Your task to perform on an android device: What's the price of the Sony TV? Image 0: 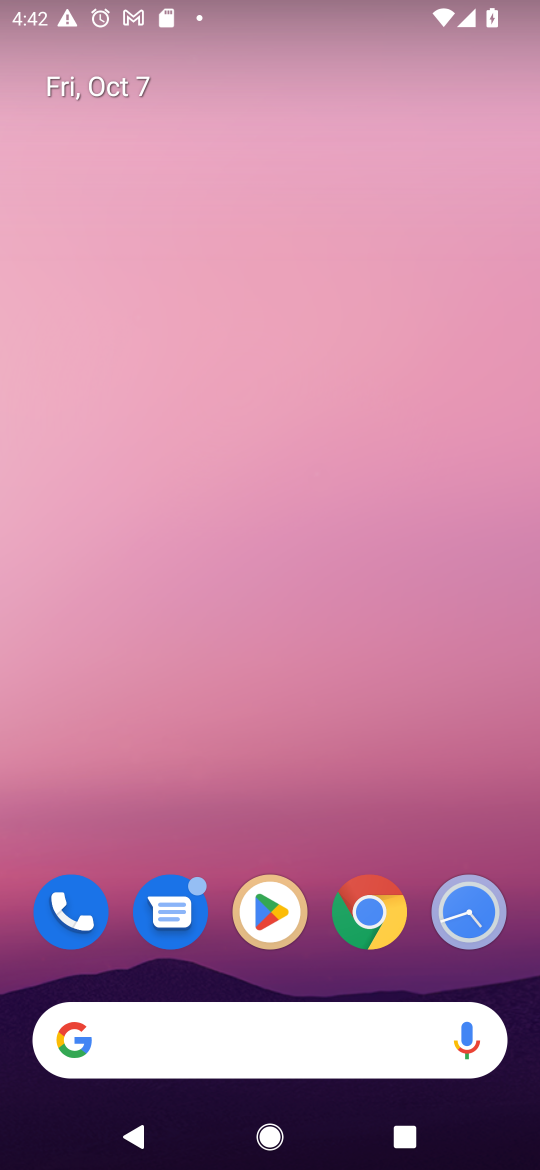
Step 0: drag from (124, 907) to (186, 672)
Your task to perform on an android device: What's the price of the Sony TV? Image 1: 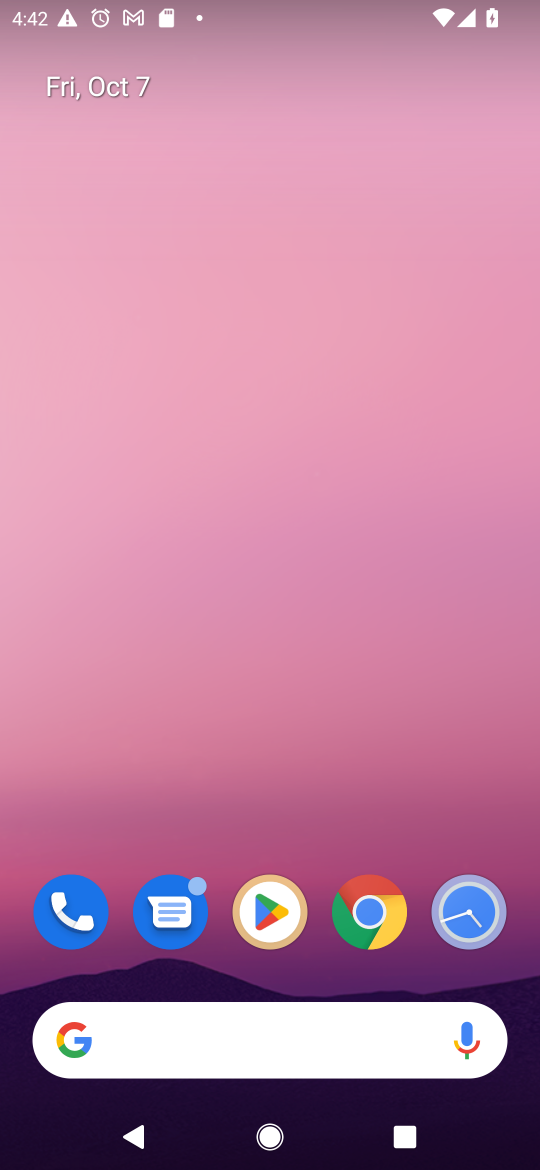
Step 1: drag from (266, 959) to (304, 313)
Your task to perform on an android device: What's the price of the Sony TV? Image 2: 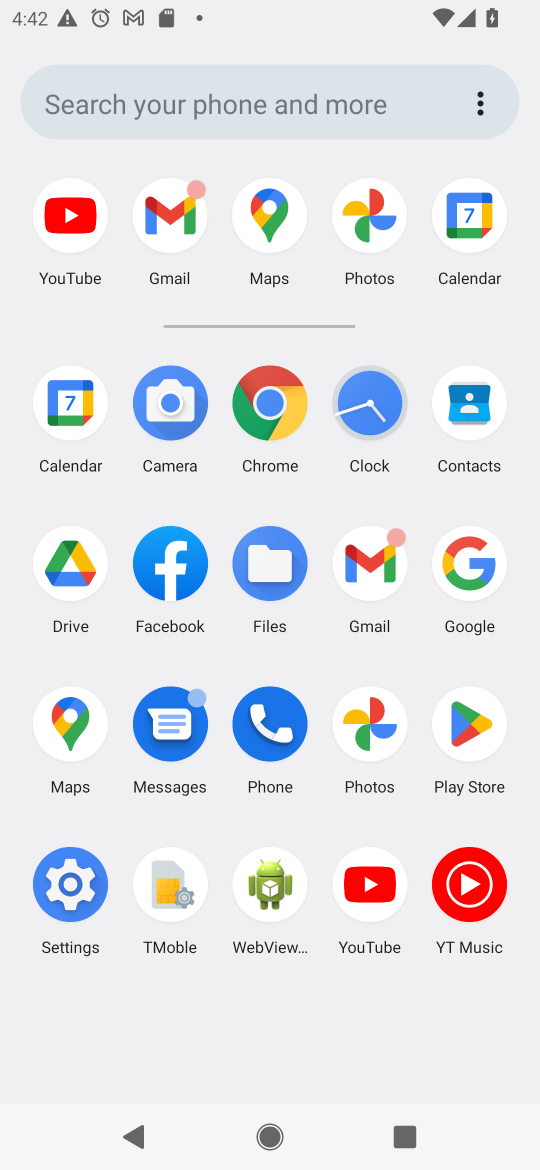
Step 2: click (462, 558)
Your task to perform on an android device: What's the price of the Sony TV? Image 3: 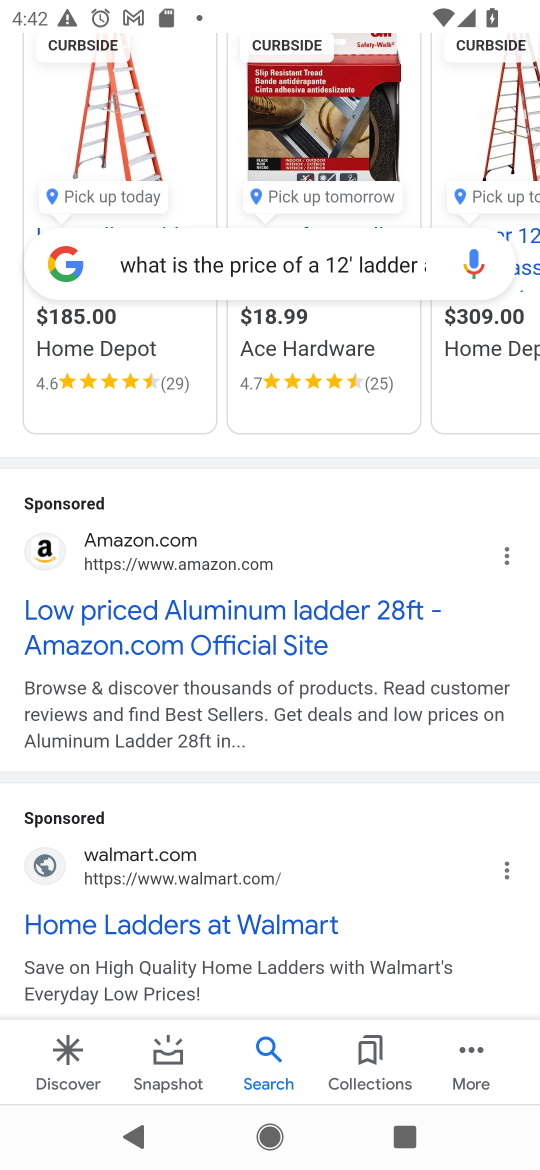
Step 3: click (258, 259)
Your task to perform on an android device: What's the price of the Sony TV? Image 4: 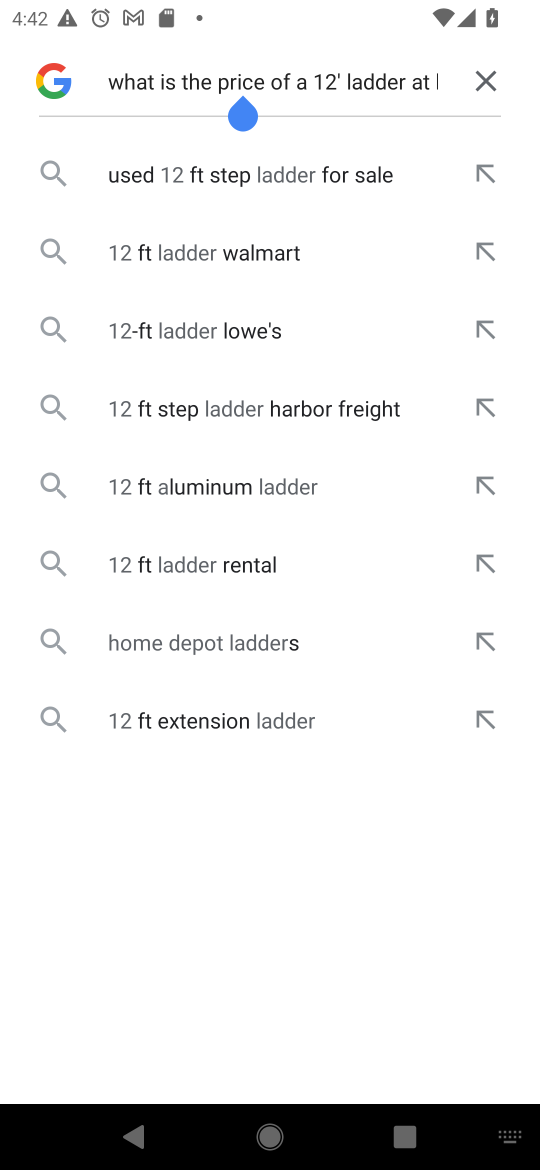
Step 4: click (475, 78)
Your task to perform on an android device: What's the price of the Sony TV? Image 5: 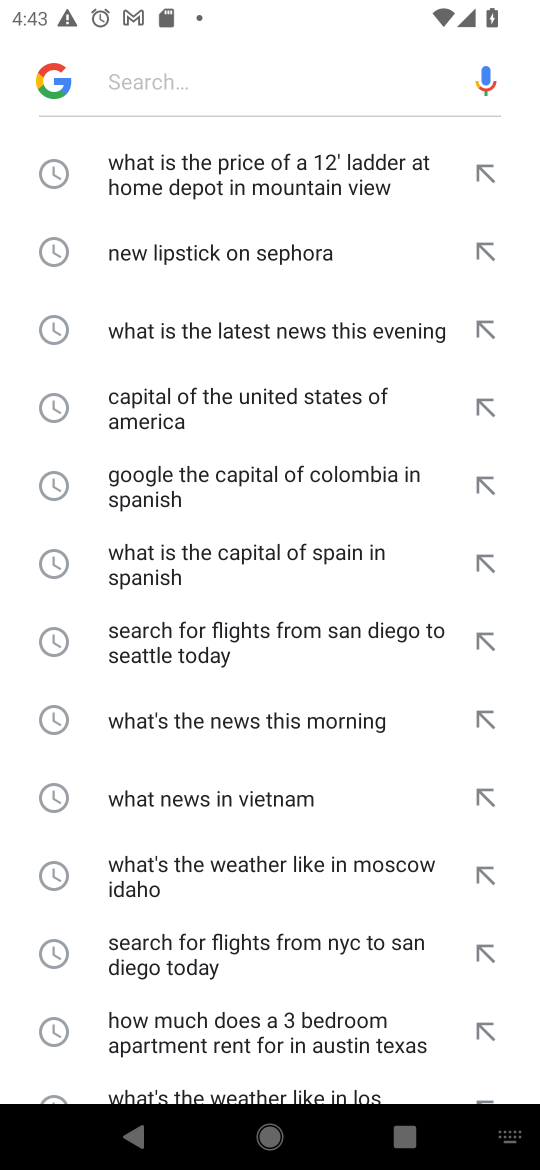
Step 5: click (214, 55)
Your task to perform on an android device: What's the price of the Sony TV? Image 6: 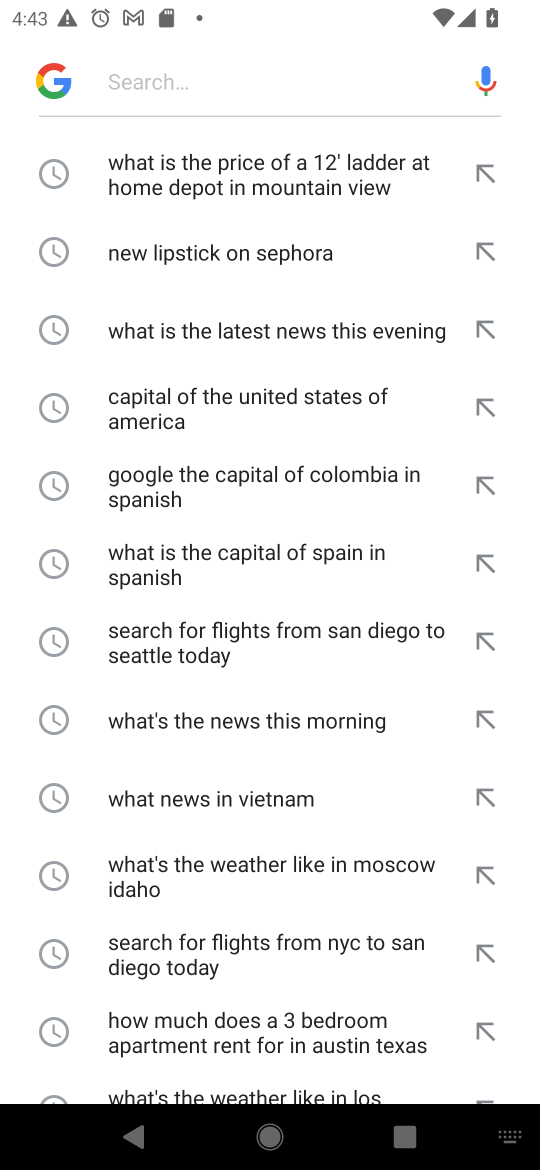
Step 6: type "What's the price of the Sony TV? "
Your task to perform on an android device: What's the price of the Sony TV? Image 7: 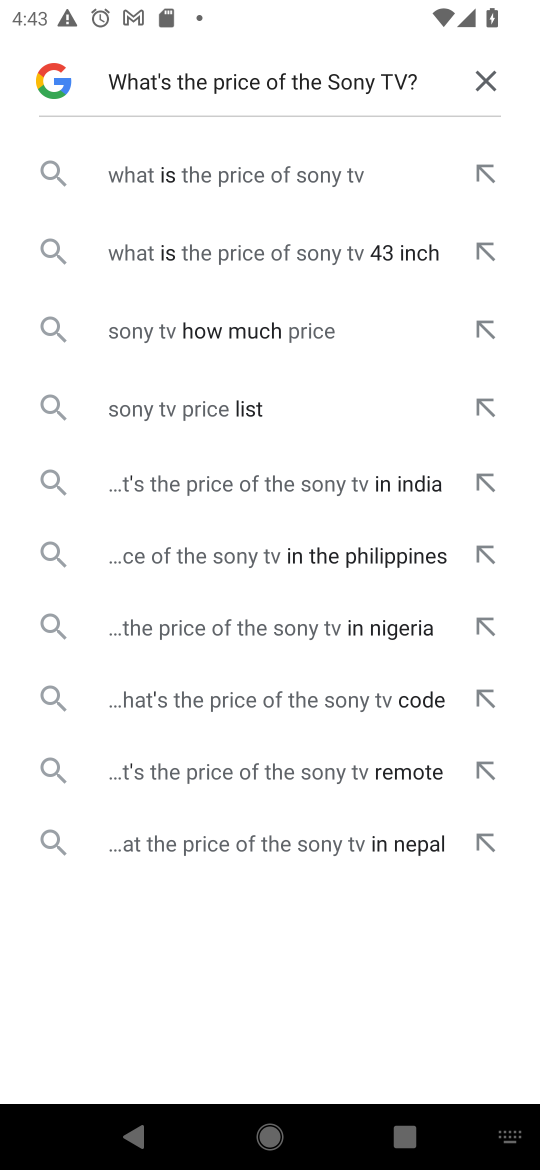
Step 7: click (264, 175)
Your task to perform on an android device: What's the price of the Sony TV? Image 8: 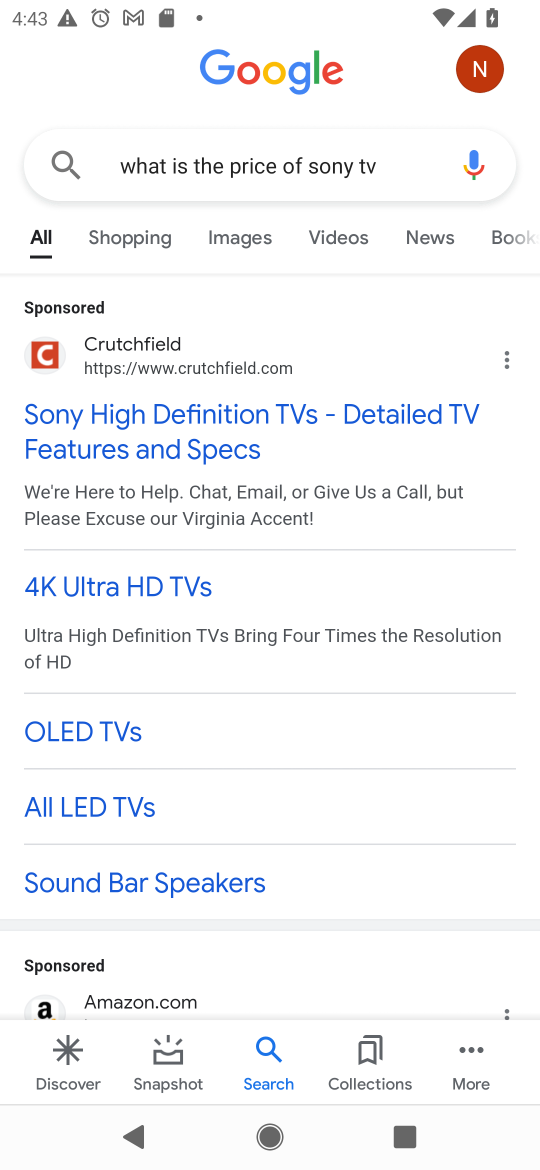
Step 8: click (189, 441)
Your task to perform on an android device: What's the price of the Sony TV? Image 9: 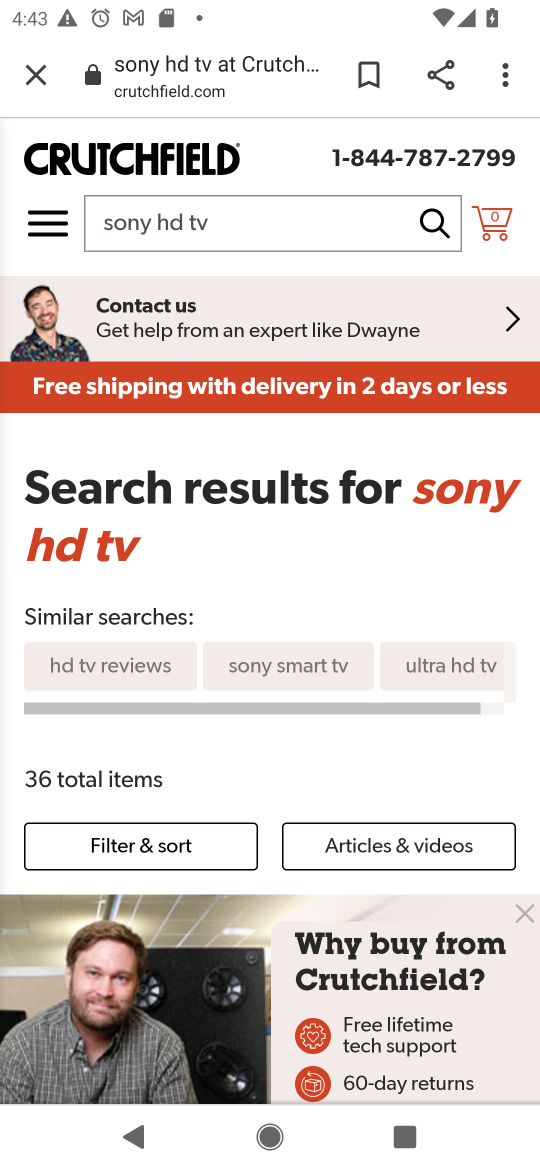
Step 9: task complete